Your task to perform on an android device: Turn off the flashlight Image 0: 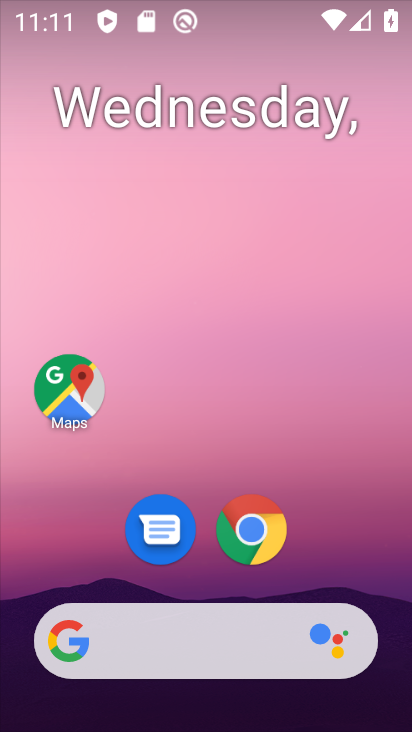
Step 0: drag from (207, 587) to (193, 0)
Your task to perform on an android device: Turn off the flashlight Image 1: 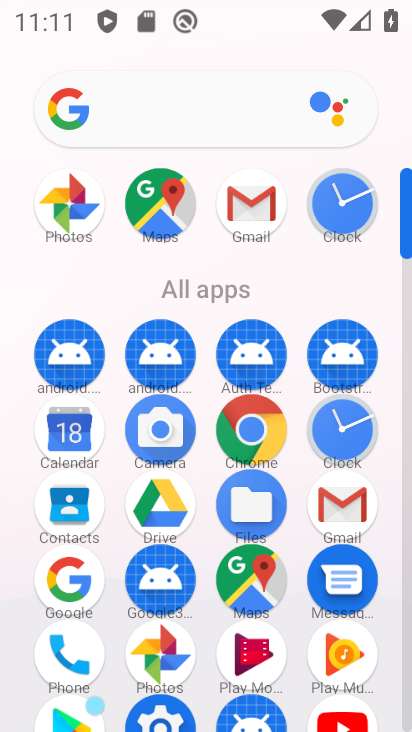
Step 1: drag from (117, 635) to (57, 163)
Your task to perform on an android device: Turn off the flashlight Image 2: 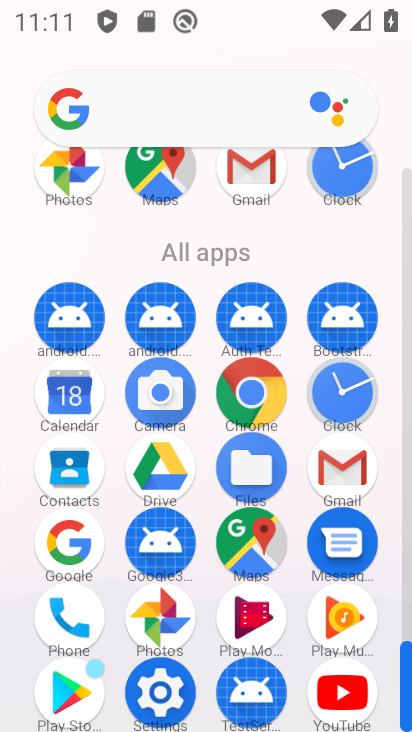
Step 2: click (165, 688)
Your task to perform on an android device: Turn off the flashlight Image 3: 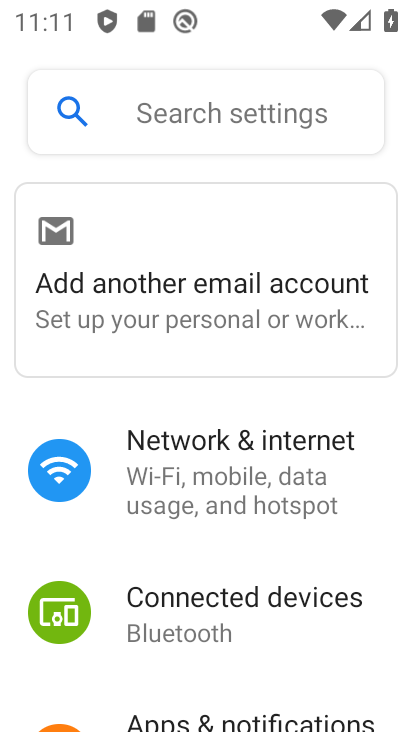
Step 3: task complete